Your task to perform on an android device: Go to display settings Image 0: 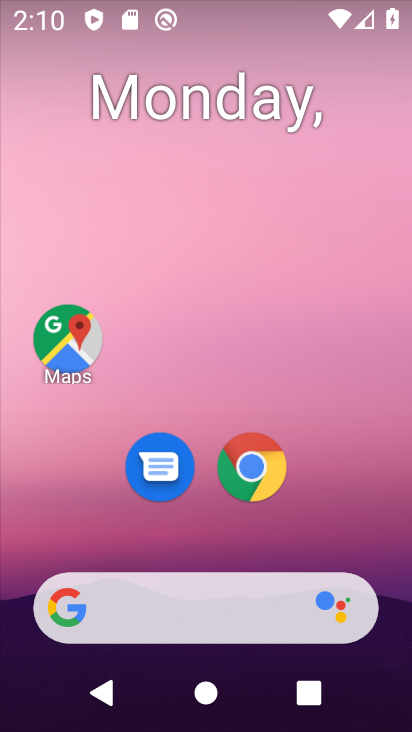
Step 0: drag from (392, 550) to (349, 125)
Your task to perform on an android device: Go to display settings Image 1: 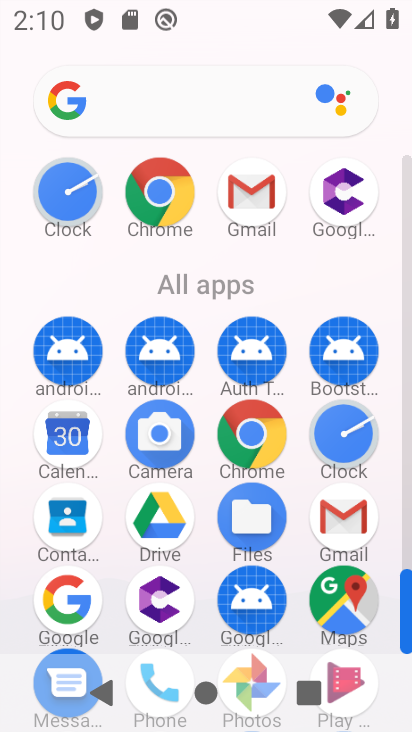
Step 1: drag from (391, 554) to (396, 456)
Your task to perform on an android device: Go to display settings Image 2: 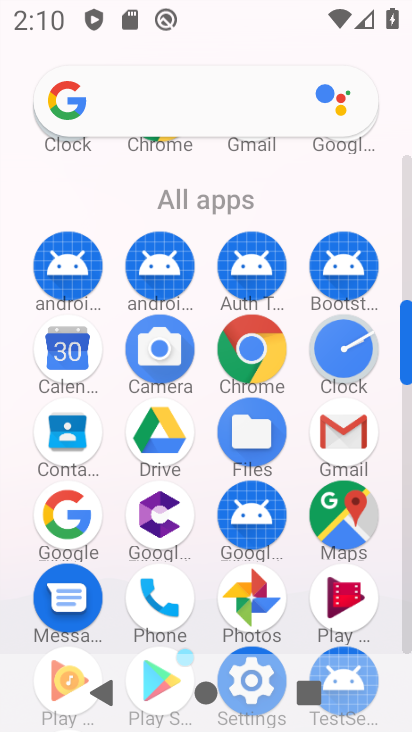
Step 2: drag from (389, 628) to (388, 537)
Your task to perform on an android device: Go to display settings Image 3: 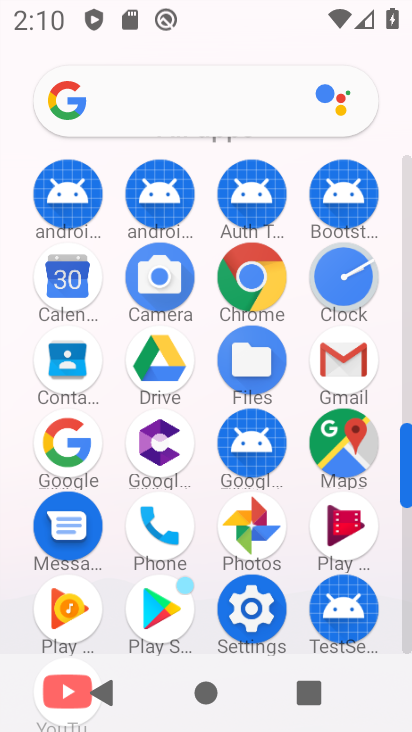
Step 3: click (256, 622)
Your task to perform on an android device: Go to display settings Image 4: 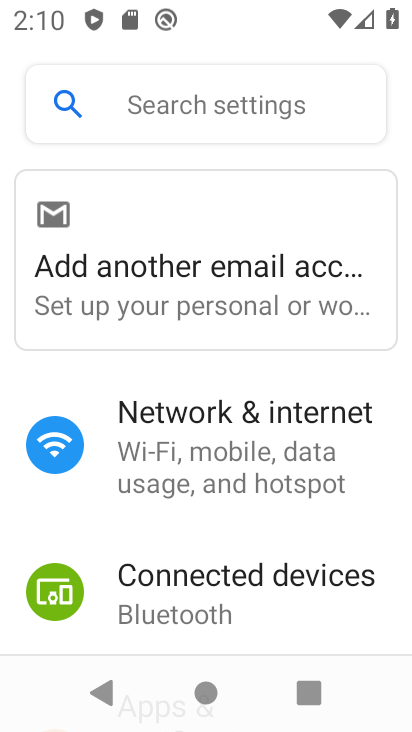
Step 4: drag from (291, 612) to (238, 172)
Your task to perform on an android device: Go to display settings Image 5: 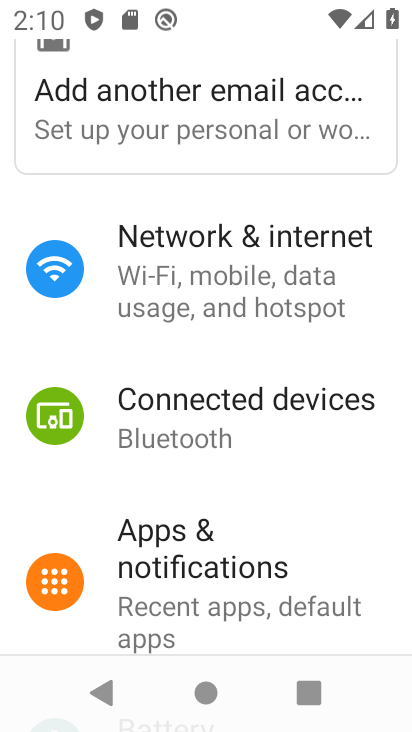
Step 5: drag from (241, 379) to (208, 251)
Your task to perform on an android device: Go to display settings Image 6: 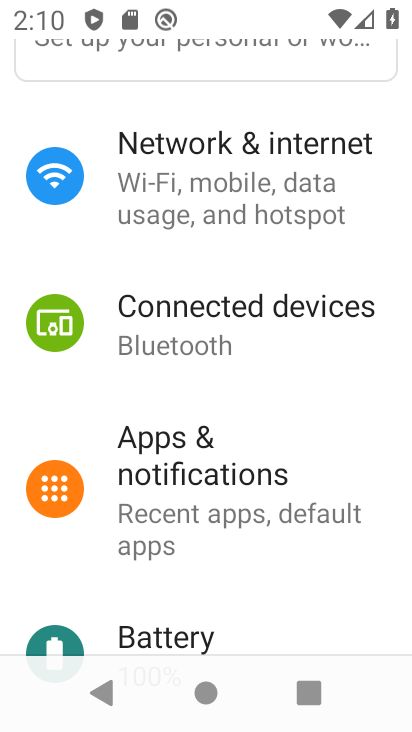
Step 6: drag from (275, 588) to (231, 321)
Your task to perform on an android device: Go to display settings Image 7: 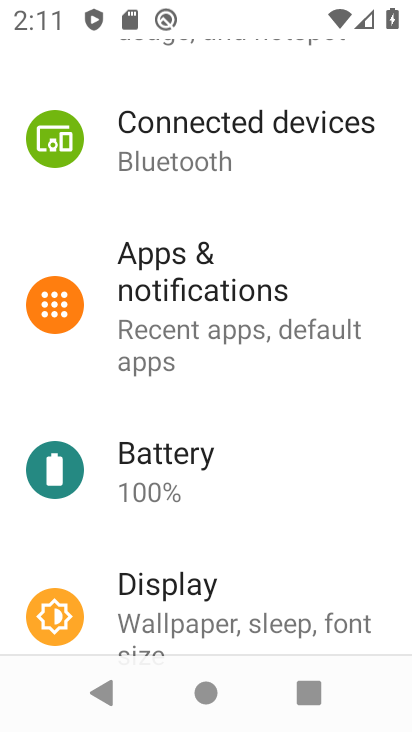
Step 7: click (249, 591)
Your task to perform on an android device: Go to display settings Image 8: 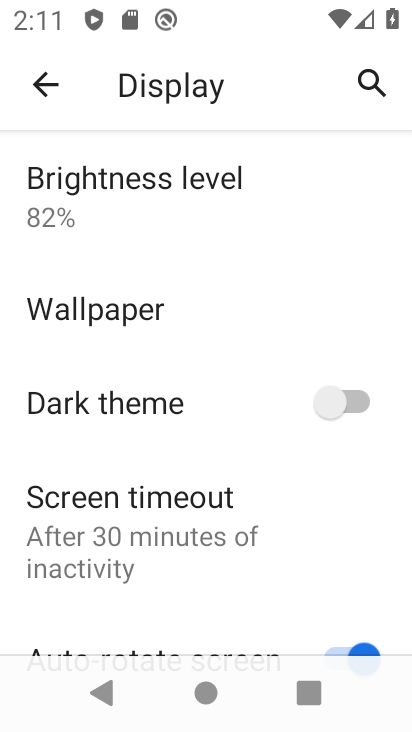
Step 8: task complete